Your task to perform on an android device: check google app version Image 0: 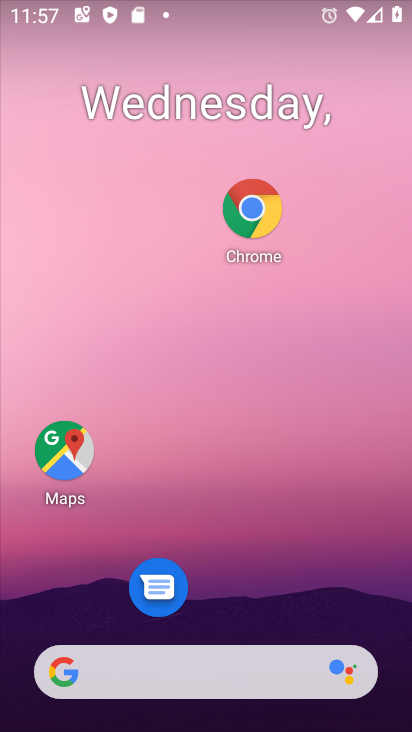
Step 0: drag from (230, 610) to (292, 18)
Your task to perform on an android device: check google app version Image 1: 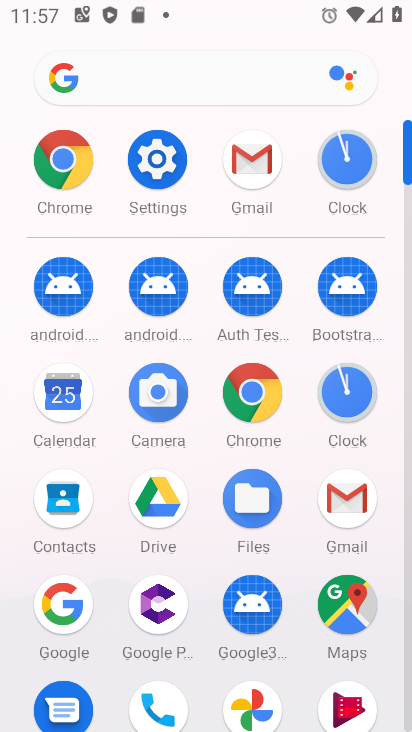
Step 1: click (76, 602)
Your task to perform on an android device: check google app version Image 2: 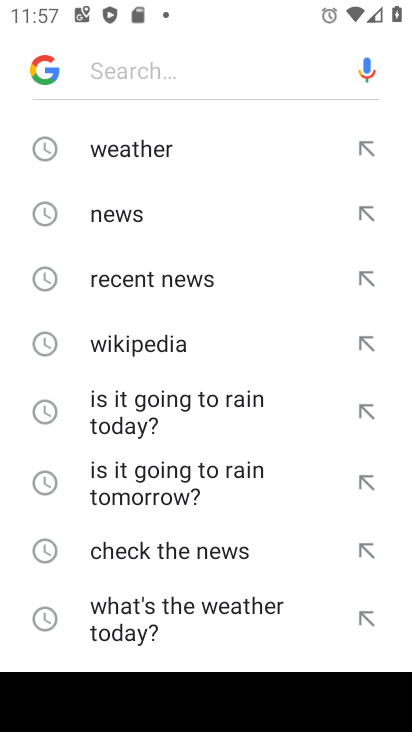
Step 2: click (45, 73)
Your task to perform on an android device: check google app version Image 3: 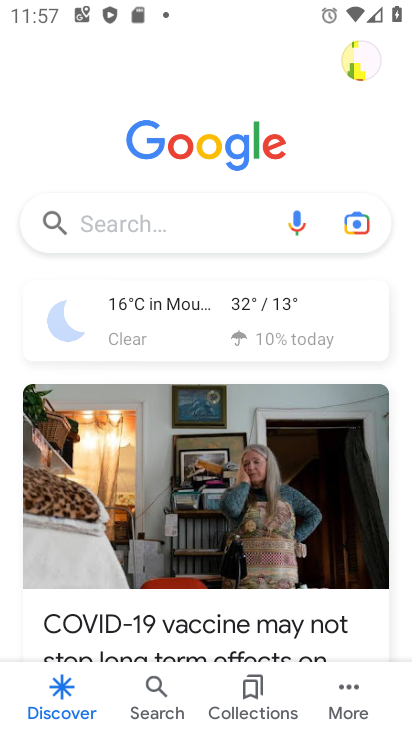
Step 3: click (356, 706)
Your task to perform on an android device: check google app version Image 4: 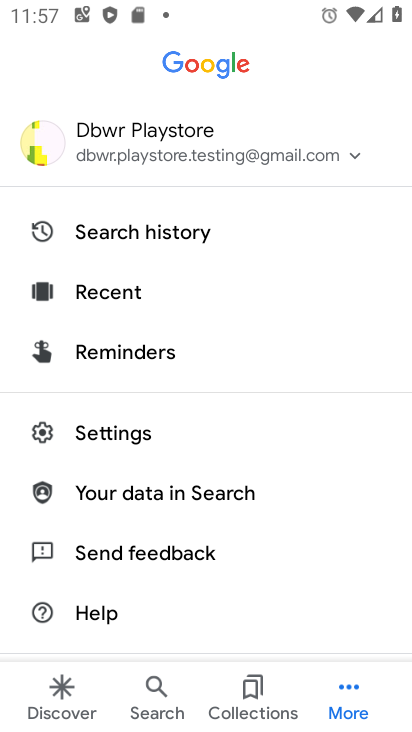
Step 4: drag from (226, 589) to (269, 212)
Your task to perform on an android device: check google app version Image 5: 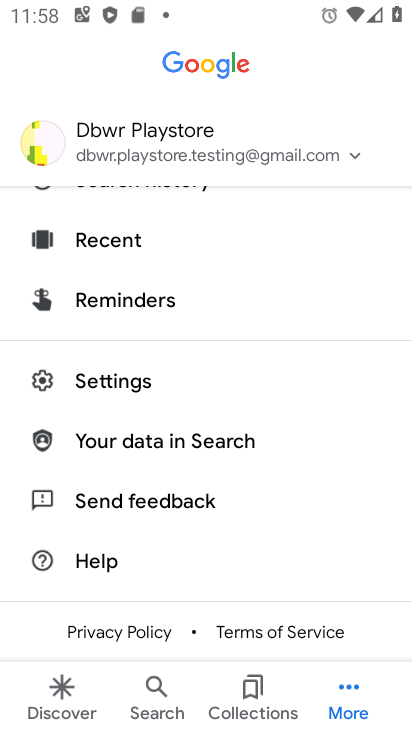
Step 5: click (106, 388)
Your task to perform on an android device: check google app version Image 6: 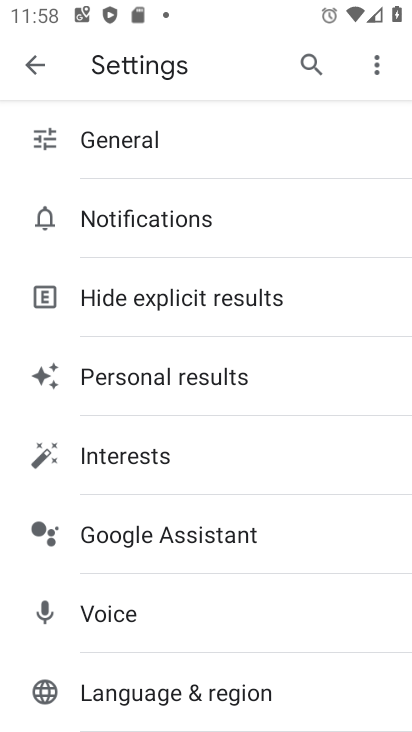
Step 6: drag from (199, 646) to (278, 230)
Your task to perform on an android device: check google app version Image 7: 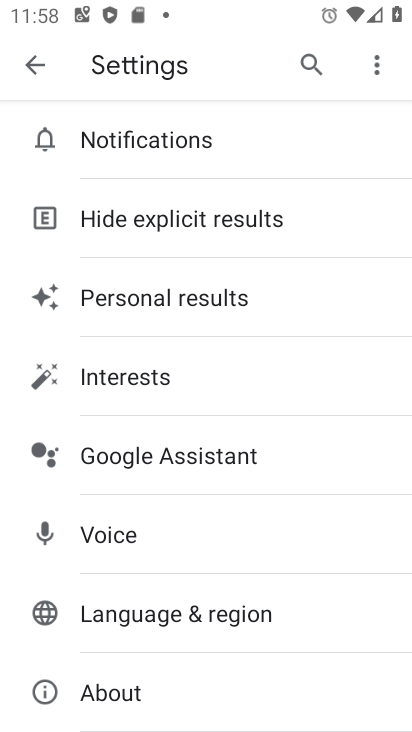
Step 7: click (111, 694)
Your task to perform on an android device: check google app version Image 8: 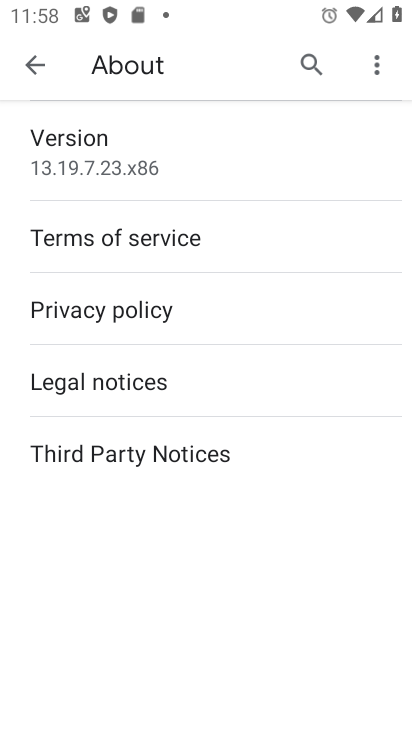
Step 8: task complete